Your task to perform on an android device: Open eBay Image 0: 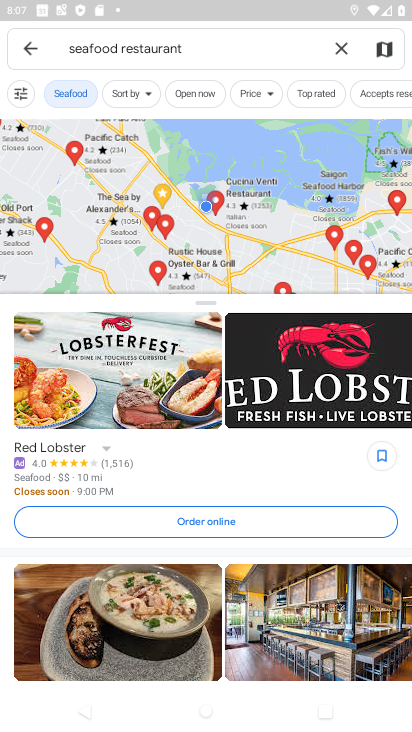
Step 0: press home button
Your task to perform on an android device: Open eBay Image 1: 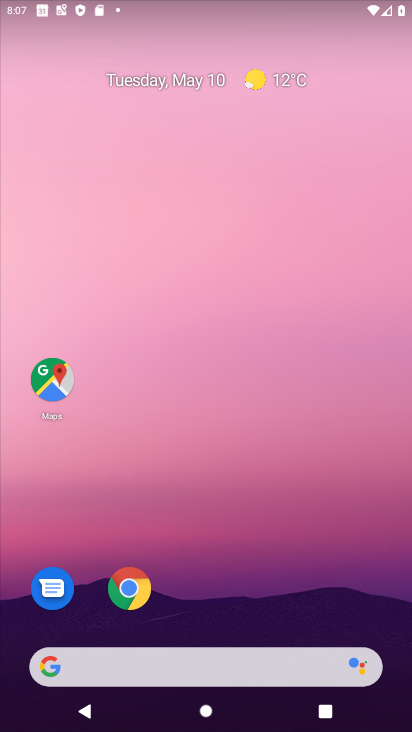
Step 1: click (129, 589)
Your task to perform on an android device: Open eBay Image 2: 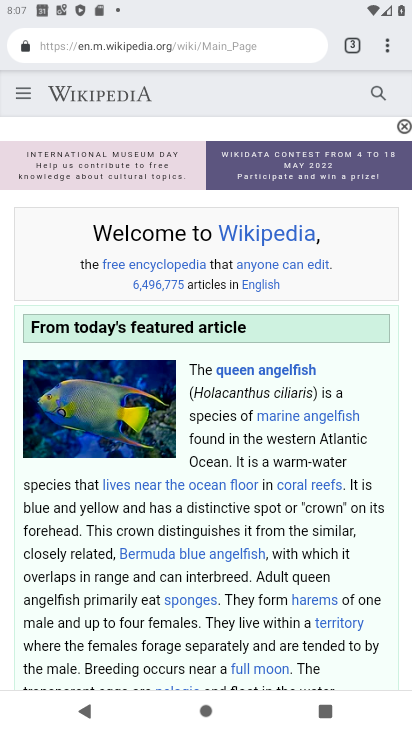
Step 2: click (351, 44)
Your task to perform on an android device: Open eBay Image 3: 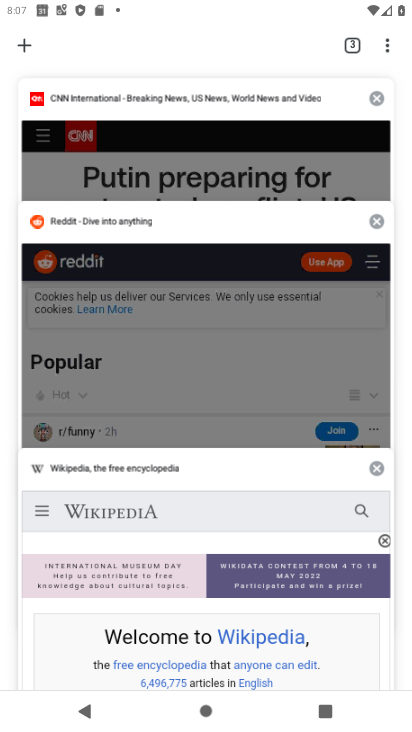
Step 3: click (25, 46)
Your task to perform on an android device: Open eBay Image 4: 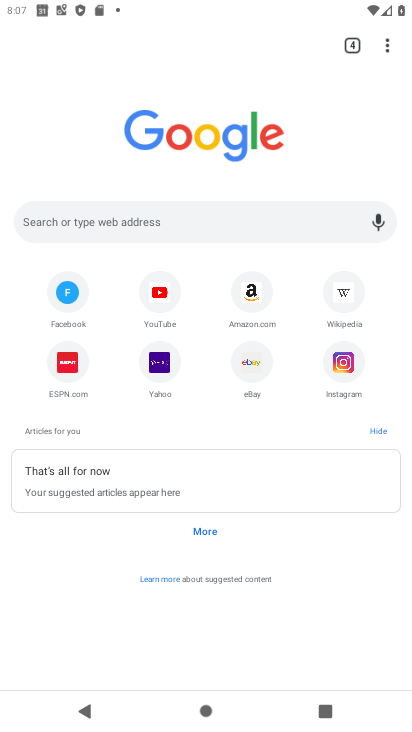
Step 4: click (245, 364)
Your task to perform on an android device: Open eBay Image 5: 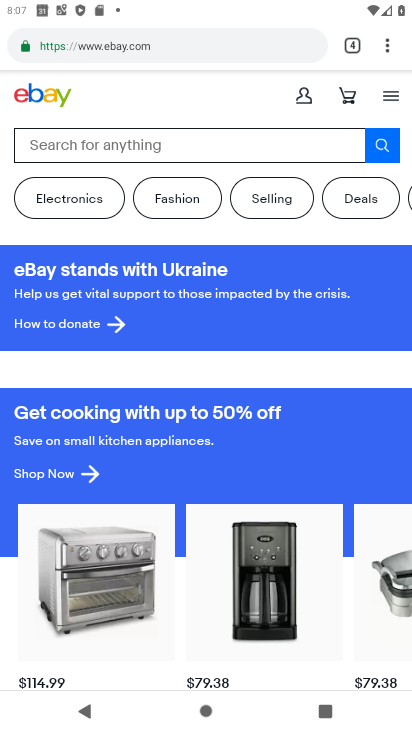
Step 5: task complete